Your task to perform on an android device: turn off priority inbox in the gmail app Image 0: 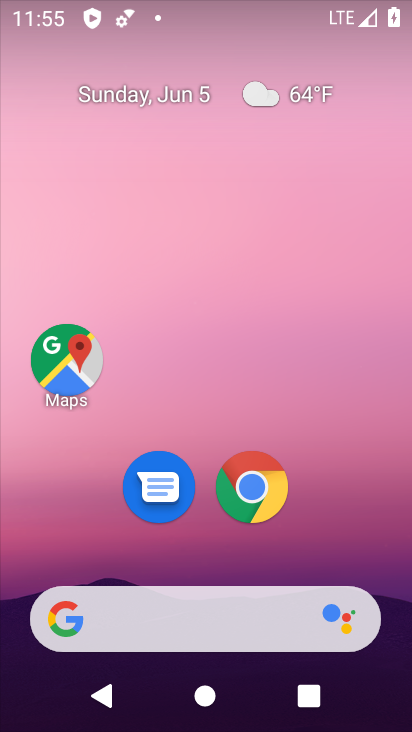
Step 0: drag from (317, 513) to (322, 152)
Your task to perform on an android device: turn off priority inbox in the gmail app Image 1: 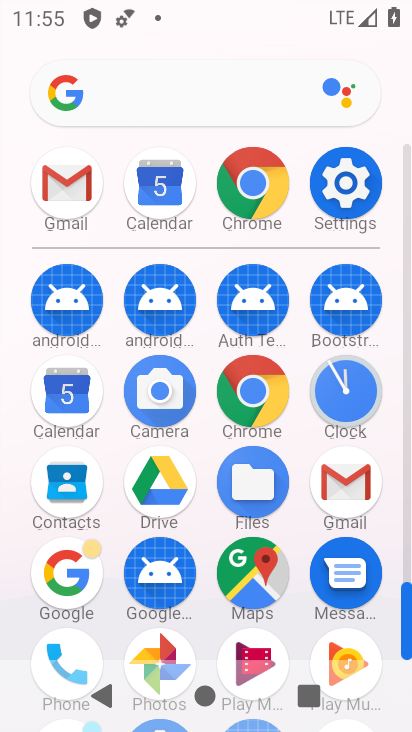
Step 1: click (341, 479)
Your task to perform on an android device: turn off priority inbox in the gmail app Image 2: 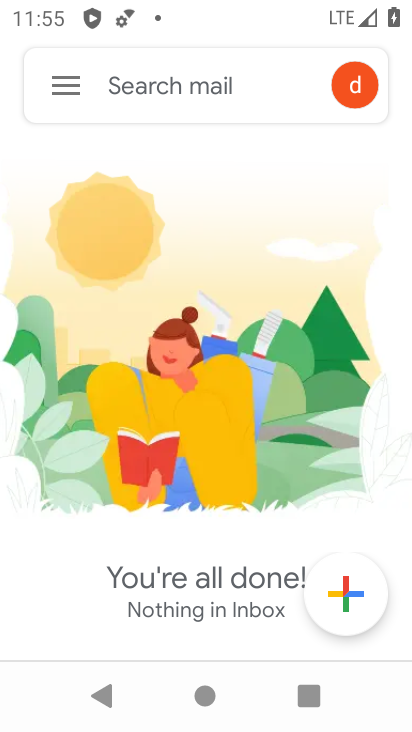
Step 2: click (78, 86)
Your task to perform on an android device: turn off priority inbox in the gmail app Image 3: 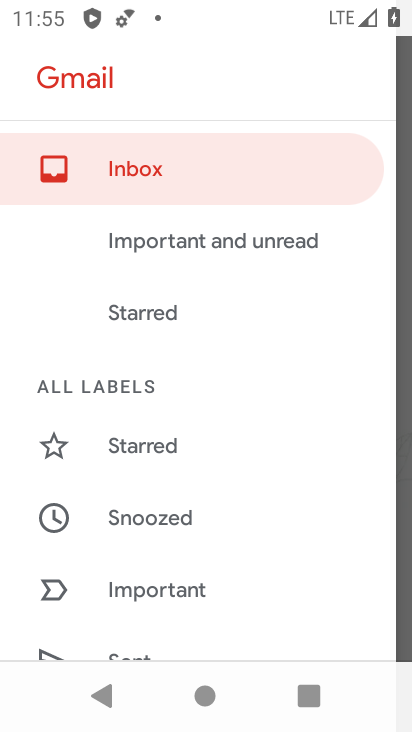
Step 3: drag from (184, 561) to (236, 250)
Your task to perform on an android device: turn off priority inbox in the gmail app Image 4: 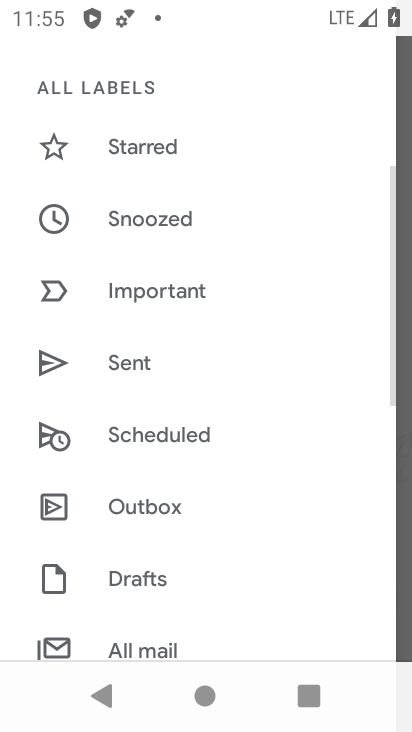
Step 4: drag from (289, 610) to (305, 224)
Your task to perform on an android device: turn off priority inbox in the gmail app Image 5: 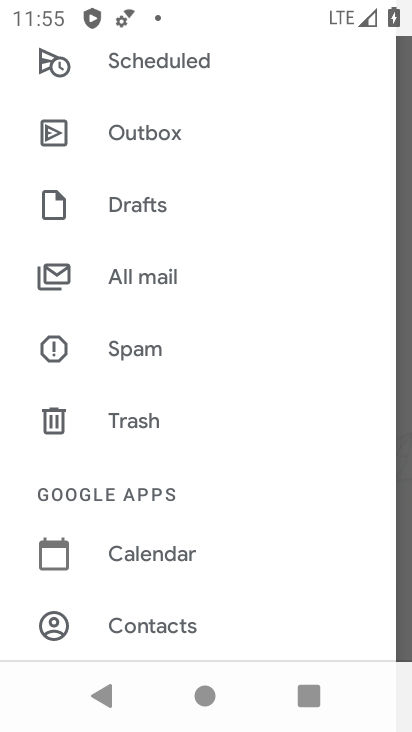
Step 5: drag from (265, 586) to (261, 206)
Your task to perform on an android device: turn off priority inbox in the gmail app Image 6: 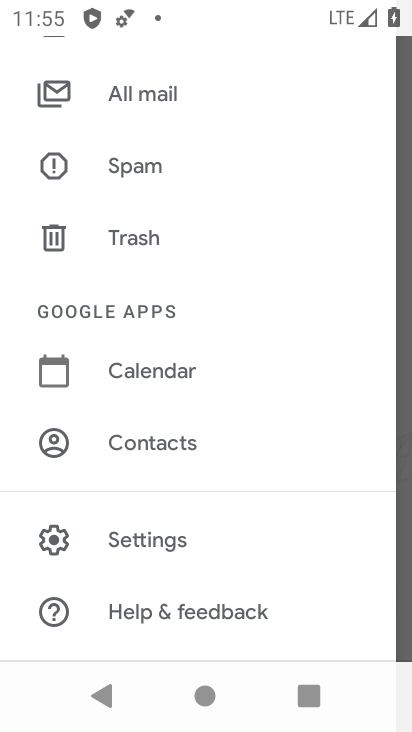
Step 6: click (221, 511)
Your task to perform on an android device: turn off priority inbox in the gmail app Image 7: 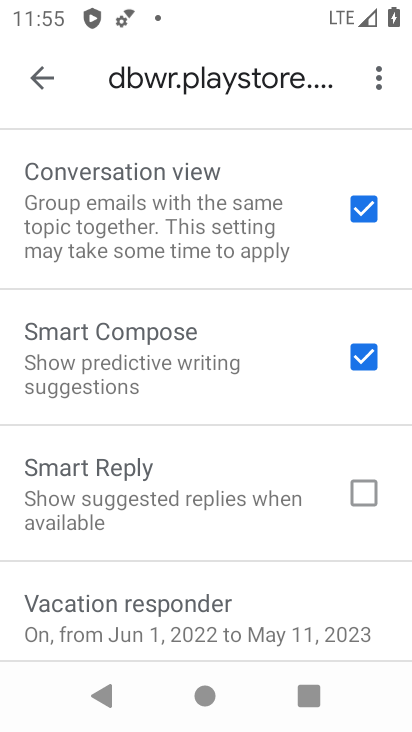
Step 7: drag from (227, 545) to (295, 142)
Your task to perform on an android device: turn off priority inbox in the gmail app Image 8: 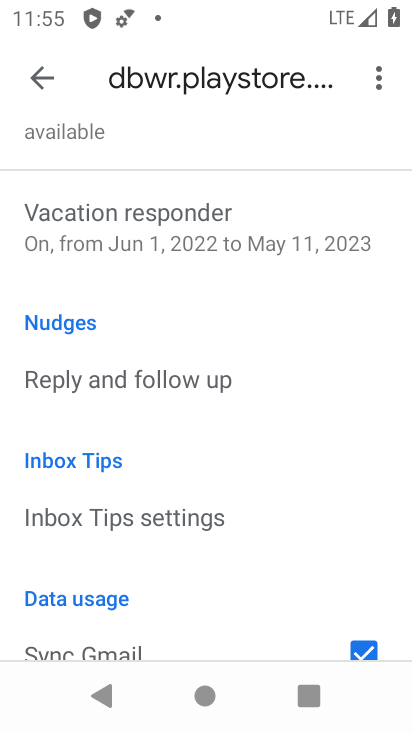
Step 8: drag from (235, 542) to (255, 160)
Your task to perform on an android device: turn off priority inbox in the gmail app Image 9: 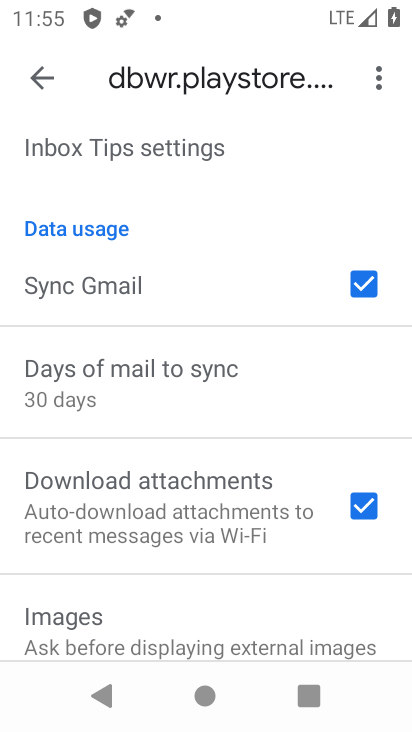
Step 9: drag from (188, 157) to (204, 554)
Your task to perform on an android device: turn off priority inbox in the gmail app Image 10: 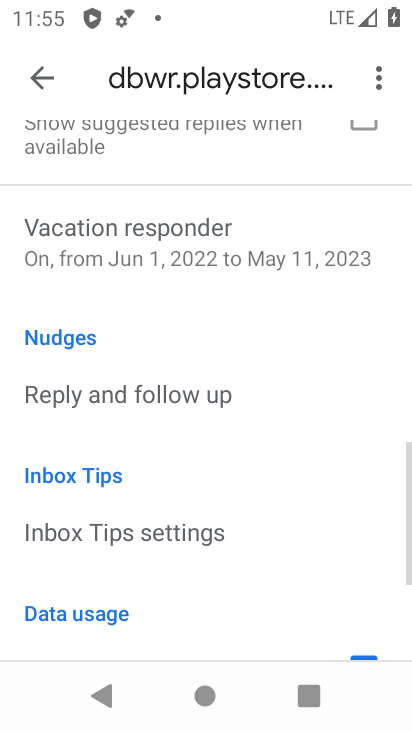
Step 10: drag from (192, 274) to (182, 574)
Your task to perform on an android device: turn off priority inbox in the gmail app Image 11: 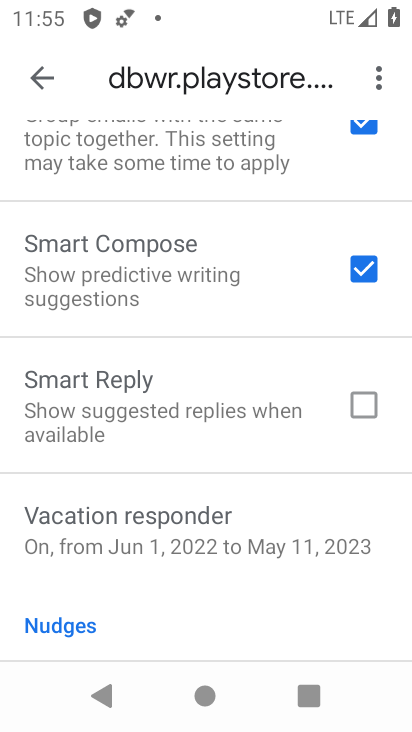
Step 11: drag from (111, 226) to (105, 619)
Your task to perform on an android device: turn off priority inbox in the gmail app Image 12: 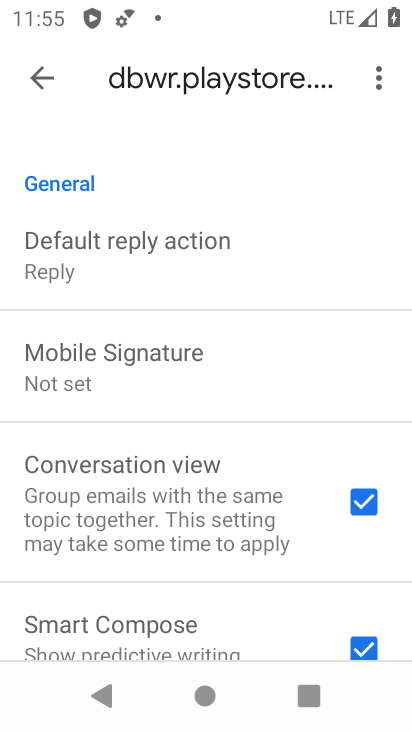
Step 12: drag from (168, 579) to (240, 289)
Your task to perform on an android device: turn off priority inbox in the gmail app Image 13: 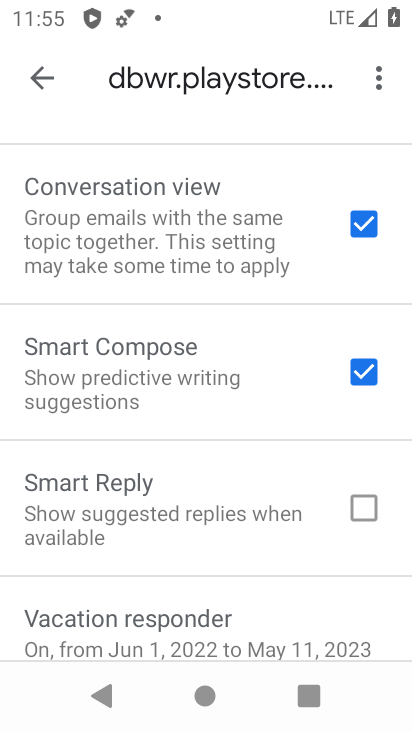
Step 13: drag from (189, 549) to (221, 297)
Your task to perform on an android device: turn off priority inbox in the gmail app Image 14: 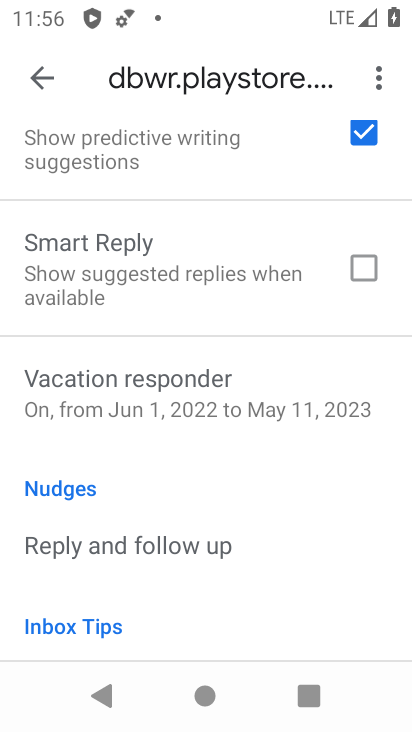
Step 14: drag from (183, 166) to (183, 714)
Your task to perform on an android device: turn off priority inbox in the gmail app Image 15: 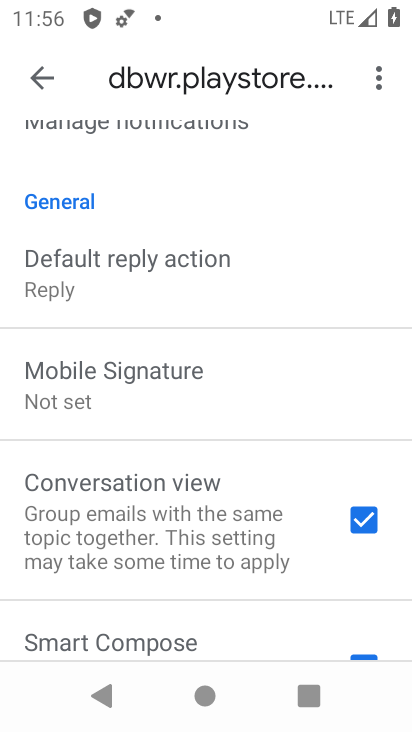
Step 15: drag from (129, 272) to (147, 593)
Your task to perform on an android device: turn off priority inbox in the gmail app Image 16: 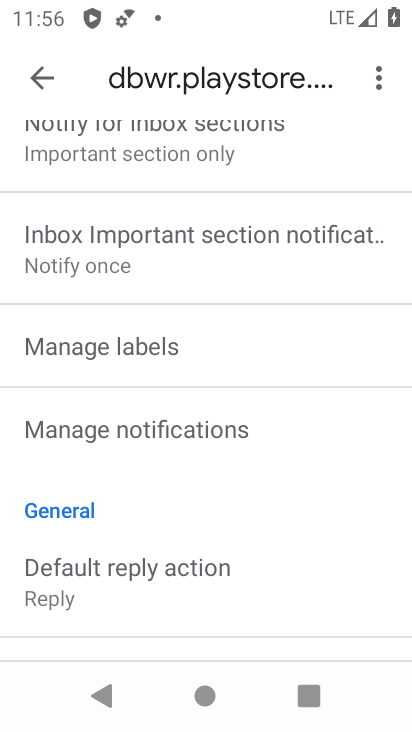
Step 16: drag from (117, 311) to (147, 614)
Your task to perform on an android device: turn off priority inbox in the gmail app Image 17: 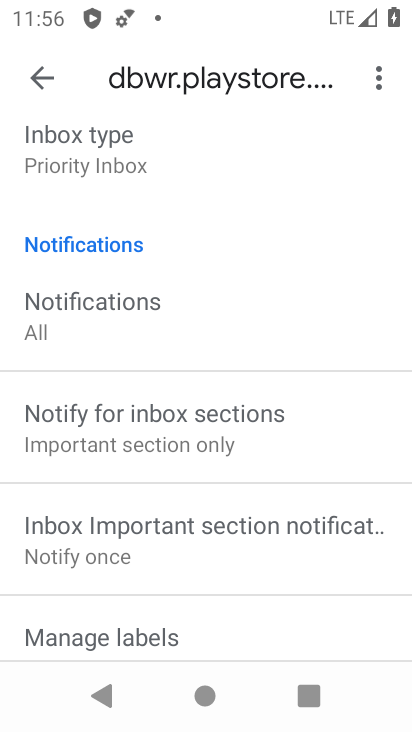
Step 17: click (70, 162)
Your task to perform on an android device: turn off priority inbox in the gmail app Image 18: 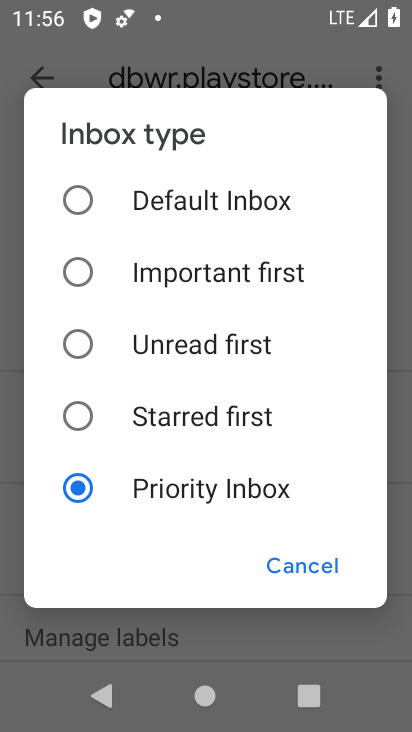
Step 18: click (87, 197)
Your task to perform on an android device: turn off priority inbox in the gmail app Image 19: 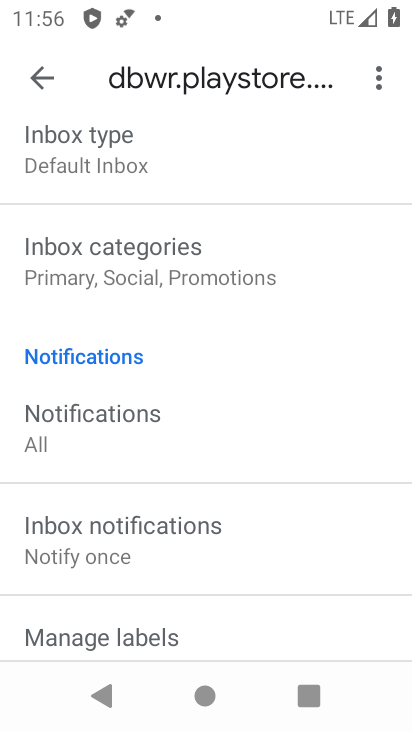
Step 19: task complete